Your task to perform on an android device: Search for hotels in Sydney Image 0: 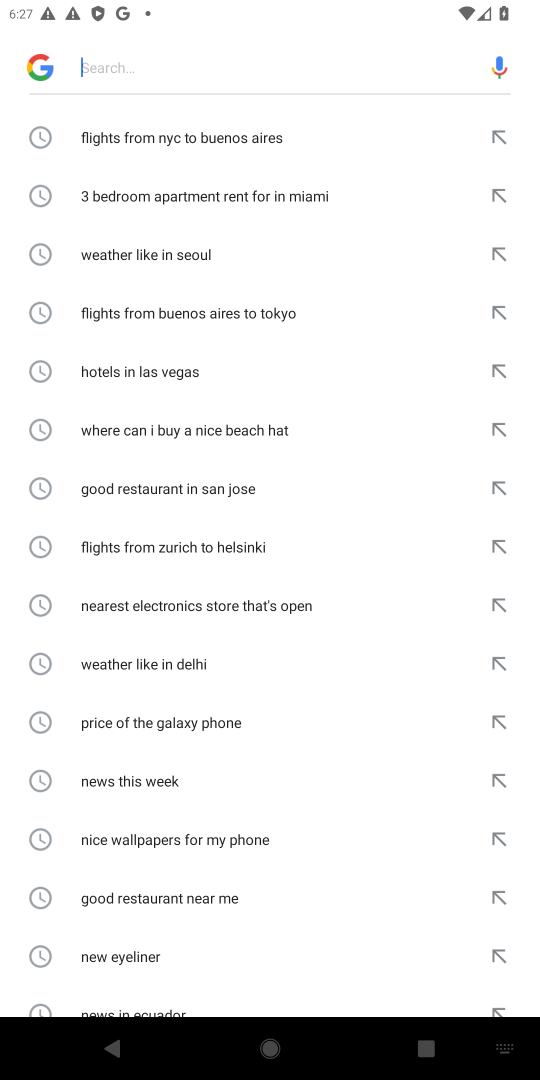
Step 0: press home button
Your task to perform on an android device: Search for hotels in Sydney Image 1: 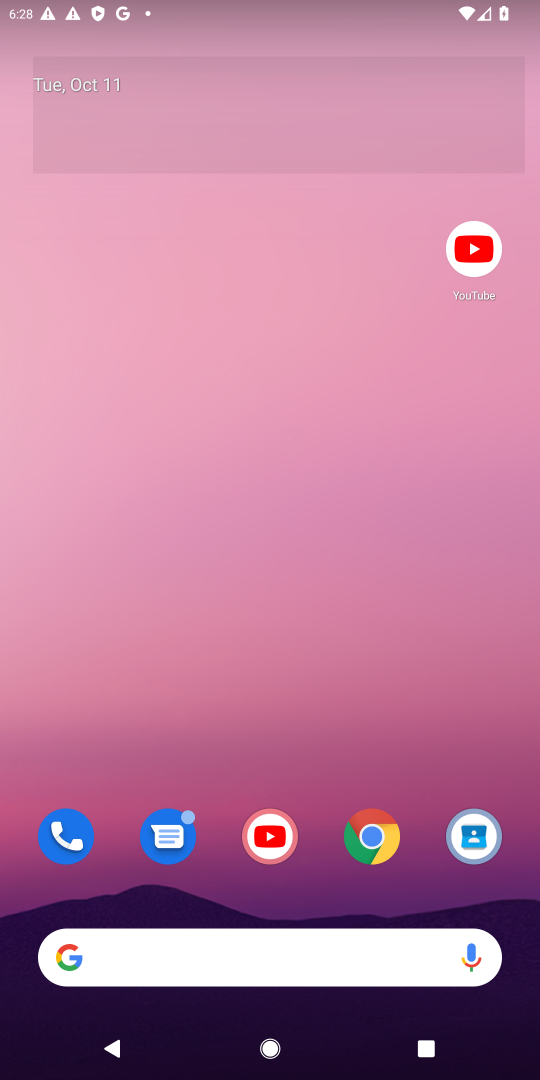
Step 1: click (374, 843)
Your task to perform on an android device: Search for hotels in Sydney Image 2: 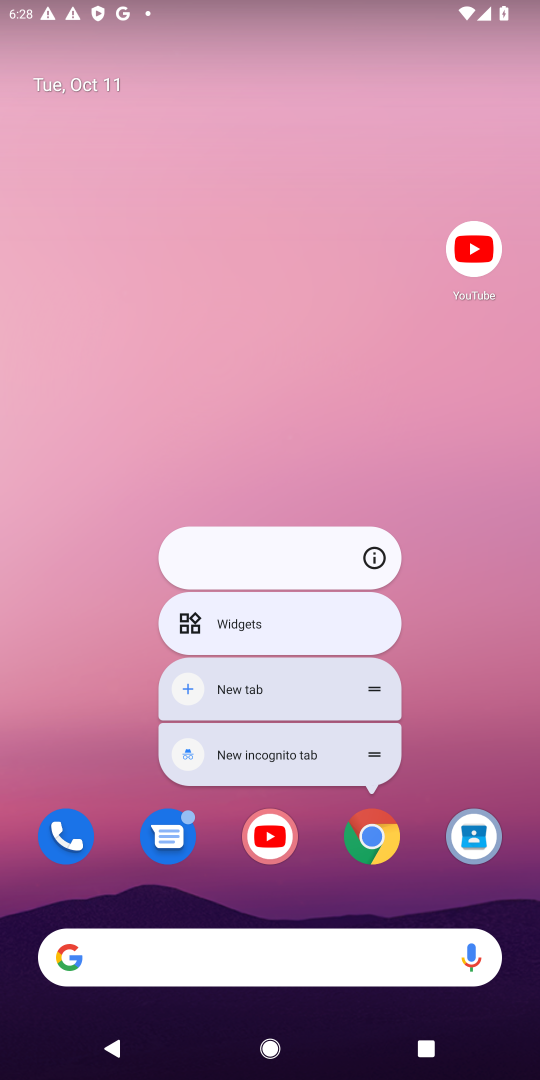
Step 2: click (374, 843)
Your task to perform on an android device: Search for hotels in Sydney Image 3: 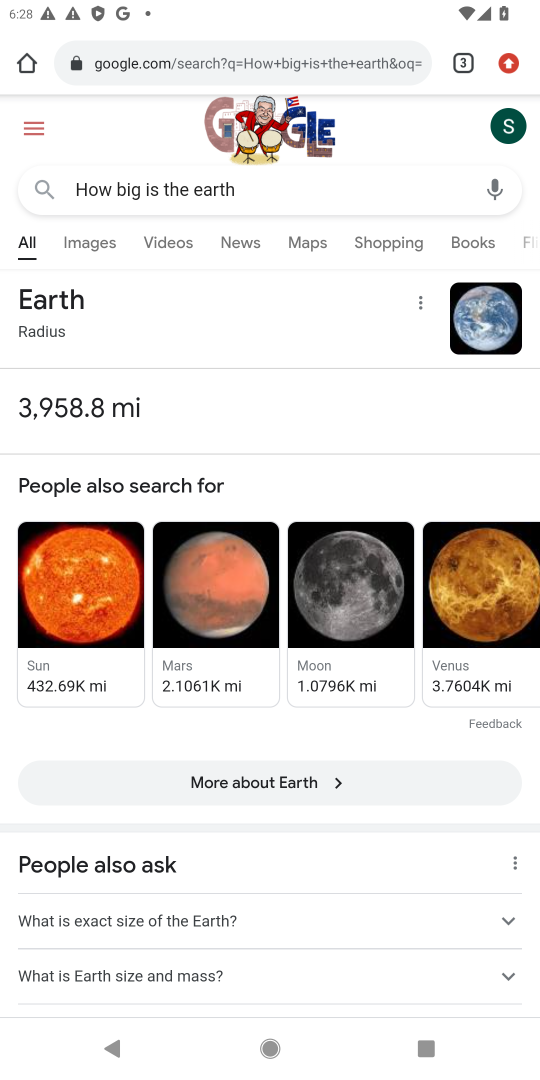
Step 3: click (291, 64)
Your task to perform on an android device: Search for hotels in Sydney Image 4: 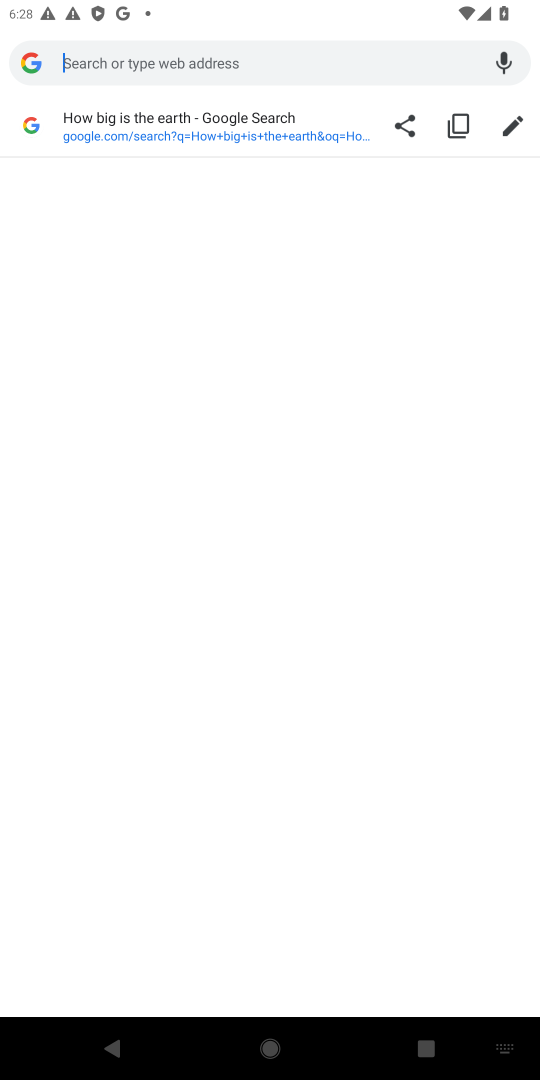
Step 4: type "hotels in Sydney"
Your task to perform on an android device: Search for hotels in Sydney Image 5: 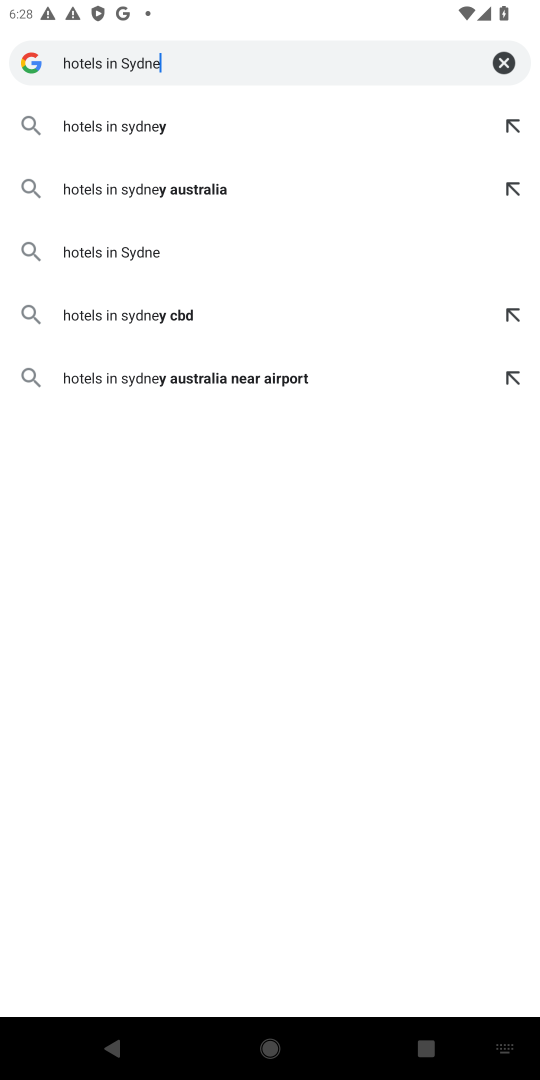
Step 5: press enter
Your task to perform on an android device: Search for hotels in Sydney Image 6: 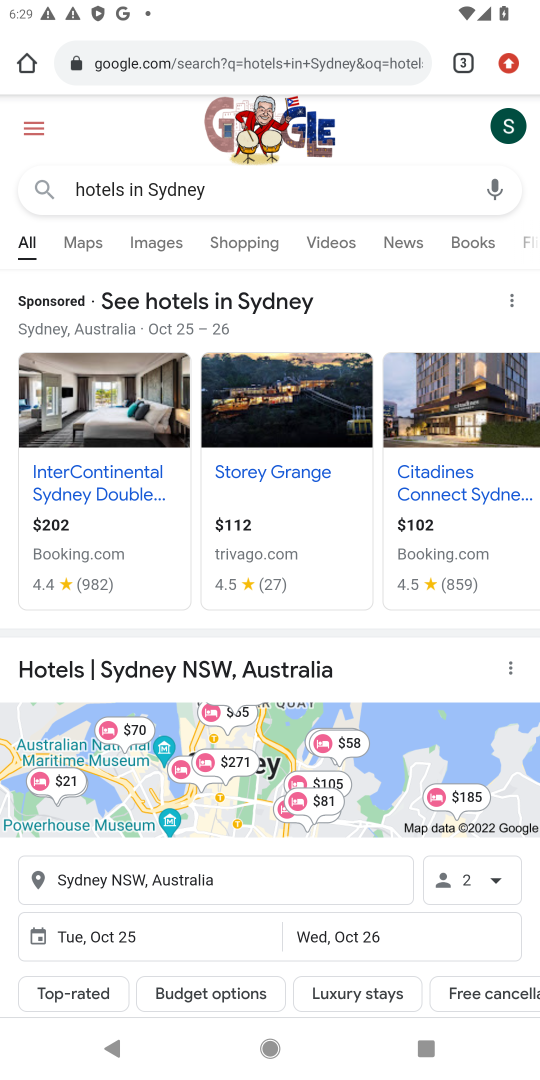
Step 6: drag from (268, 790) to (470, 235)
Your task to perform on an android device: Search for hotels in Sydney Image 7: 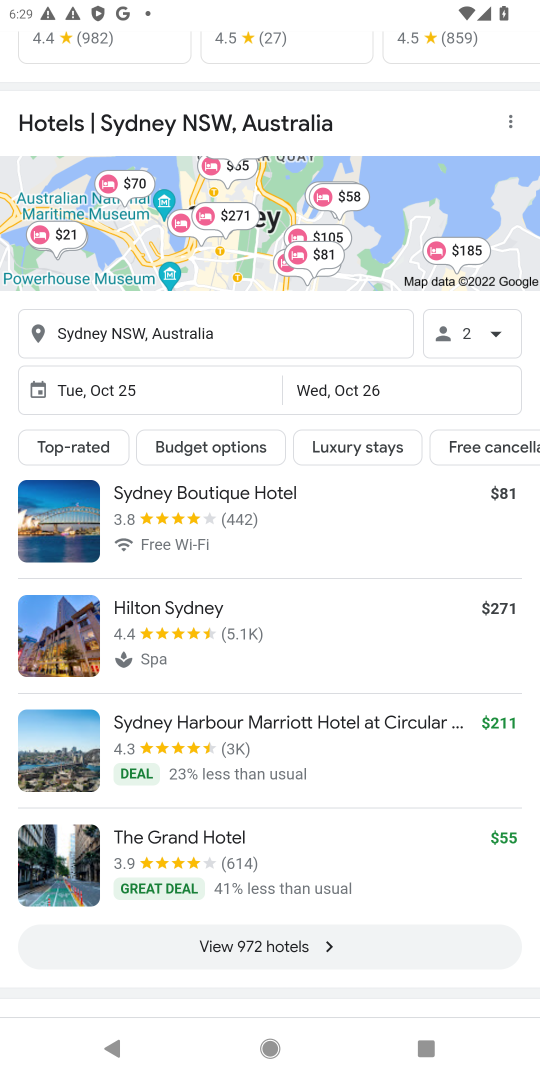
Step 7: click (247, 943)
Your task to perform on an android device: Search for hotels in Sydney Image 8: 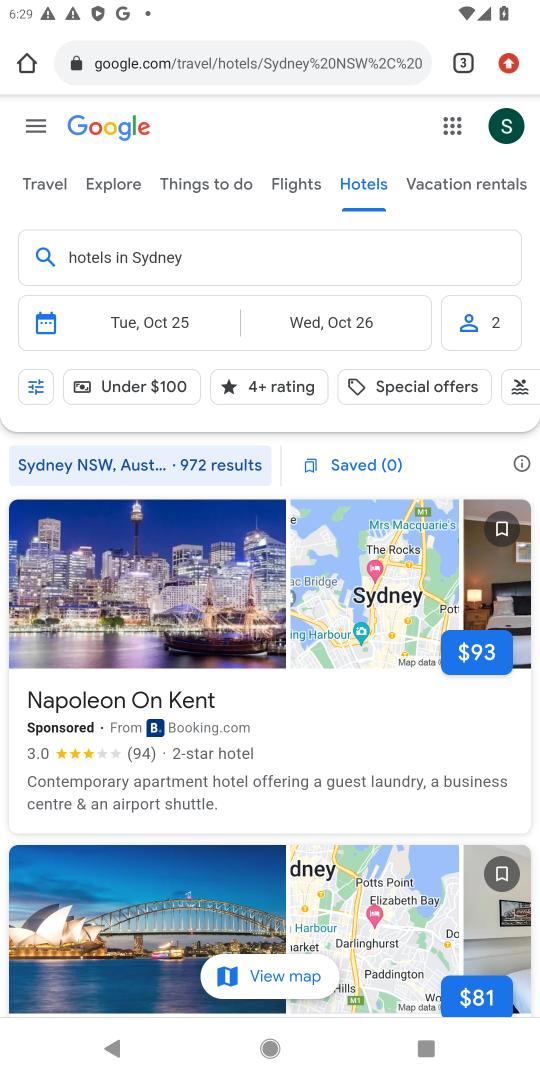
Step 8: task complete